Your task to perform on an android device: turn on bluetooth scan Image 0: 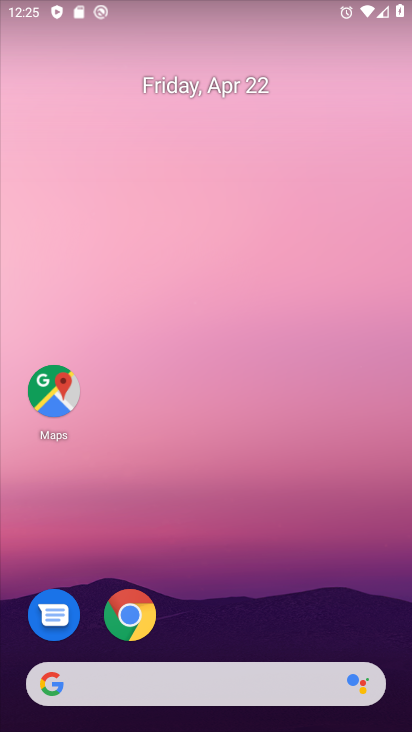
Step 0: drag from (243, 558) to (247, 171)
Your task to perform on an android device: turn on bluetooth scan Image 1: 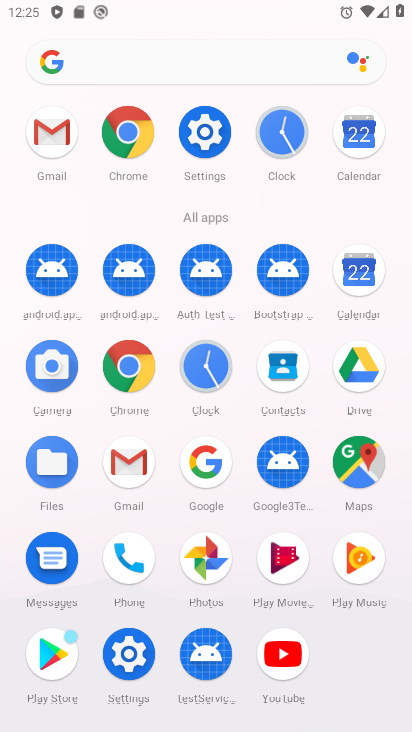
Step 1: click (199, 125)
Your task to perform on an android device: turn on bluetooth scan Image 2: 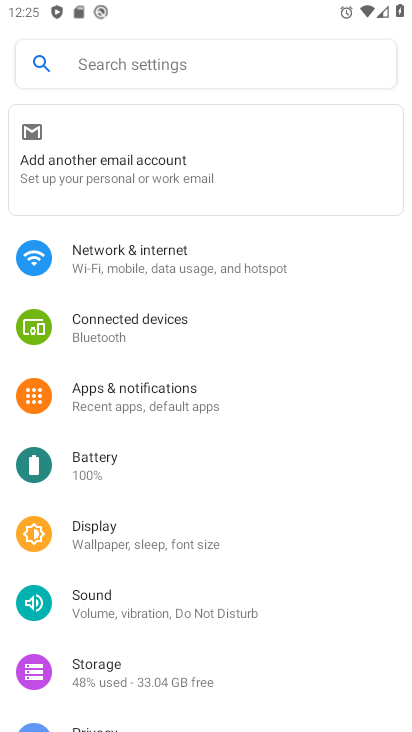
Step 2: drag from (186, 646) to (231, 288)
Your task to perform on an android device: turn on bluetooth scan Image 3: 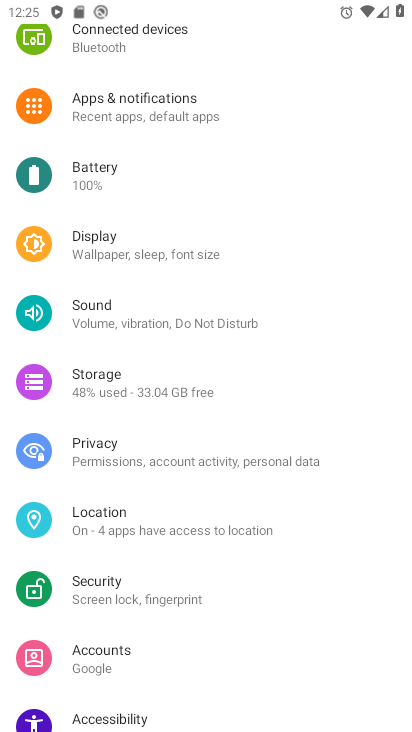
Step 3: click (157, 511)
Your task to perform on an android device: turn on bluetooth scan Image 4: 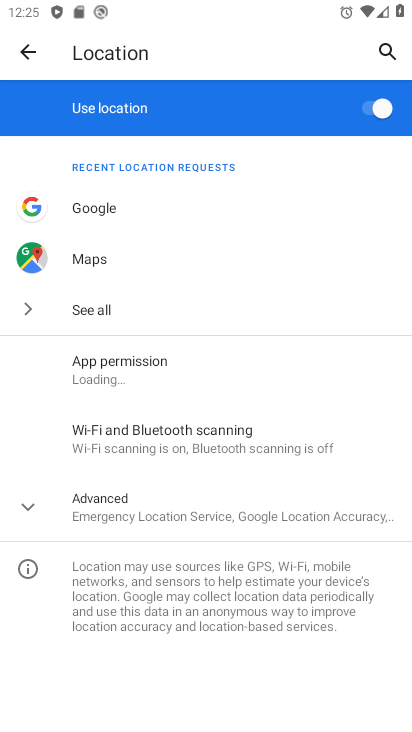
Step 4: click (165, 442)
Your task to perform on an android device: turn on bluetooth scan Image 5: 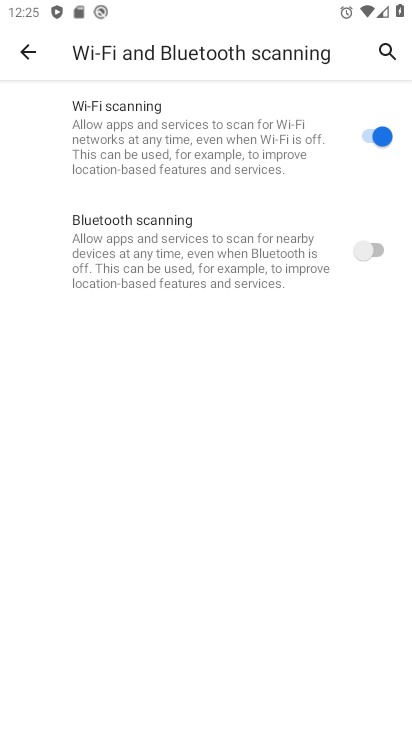
Step 5: click (368, 247)
Your task to perform on an android device: turn on bluetooth scan Image 6: 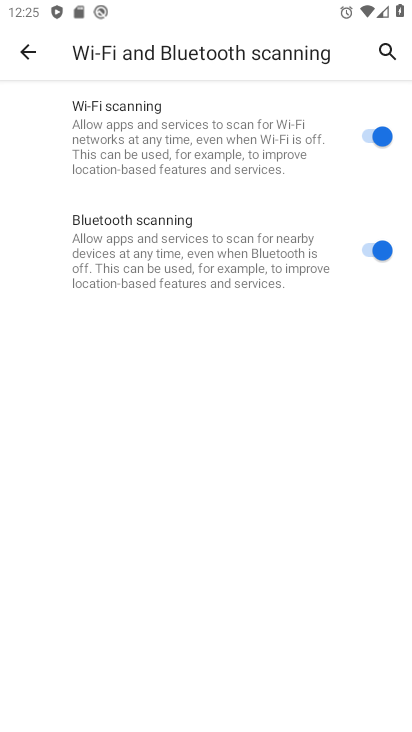
Step 6: task complete